Your task to perform on an android device: Open maps Image 0: 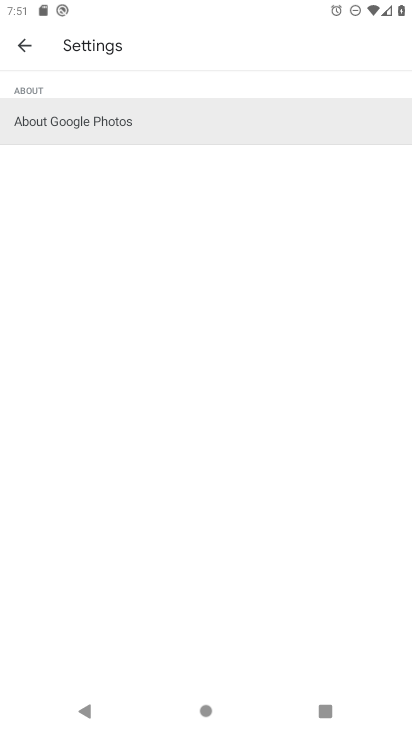
Step 0: press home button
Your task to perform on an android device: Open maps Image 1: 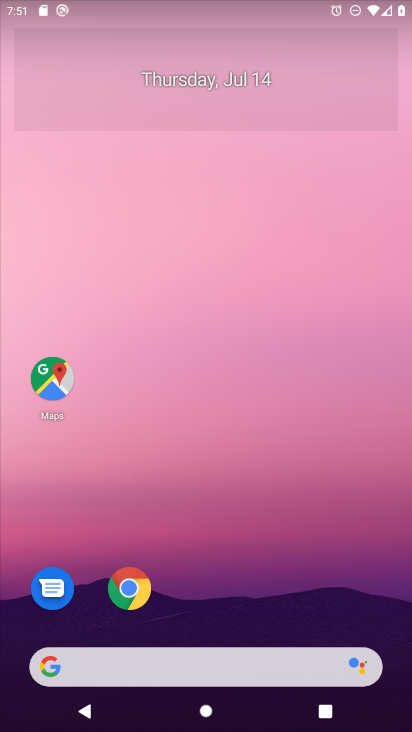
Step 1: click (78, 372)
Your task to perform on an android device: Open maps Image 2: 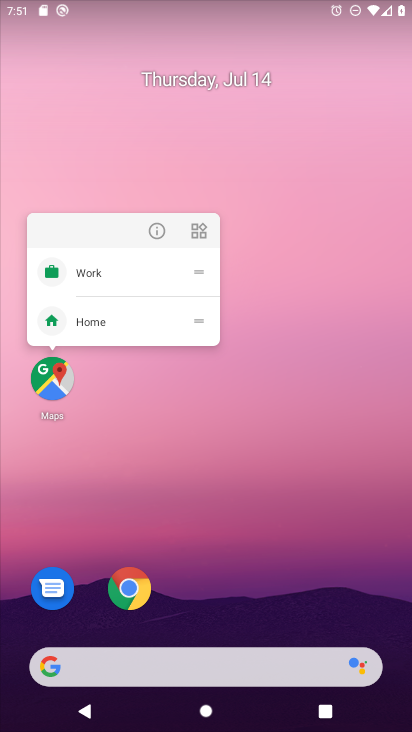
Step 2: click (36, 390)
Your task to perform on an android device: Open maps Image 3: 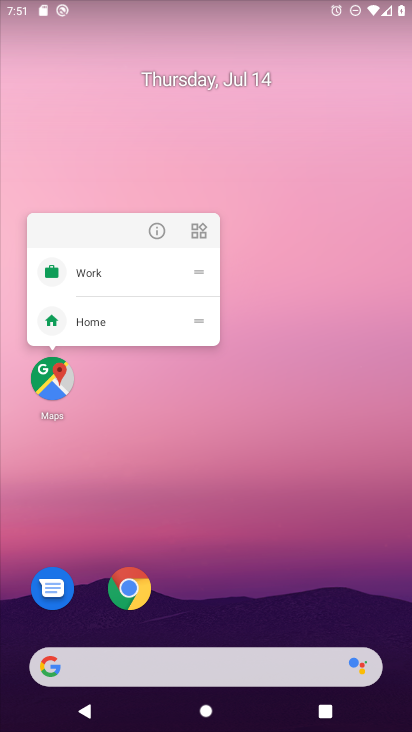
Step 3: click (40, 385)
Your task to perform on an android device: Open maps Image 4: 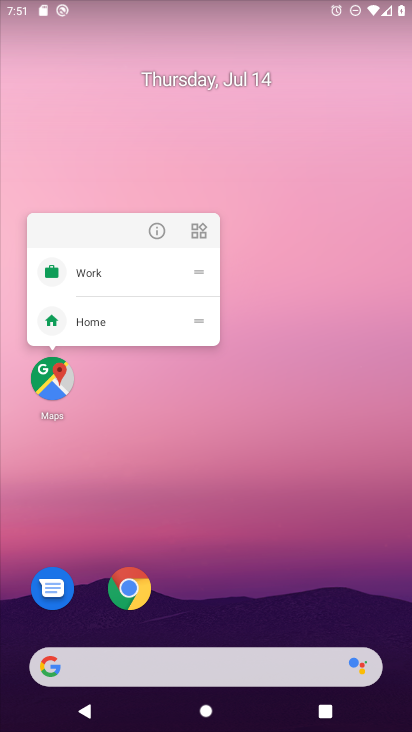
Step 4: click (52, 346)
Your task to perform on an android device: Open maps Image 5: 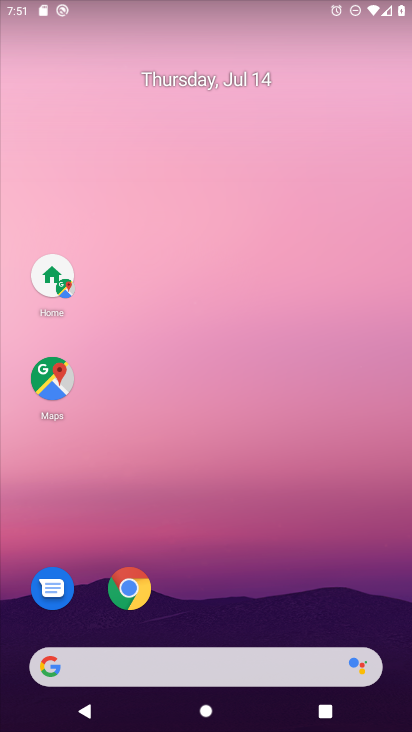
Step 5: task complete